Your task to perform on an android device: add a contact Image 0: 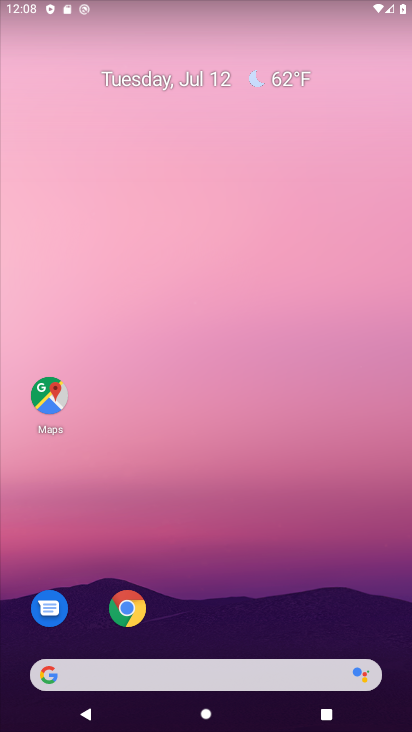
Step 0: drag from (276, 576) to (293, 77)
Your task to perform on an android device: add a contact Image 1: 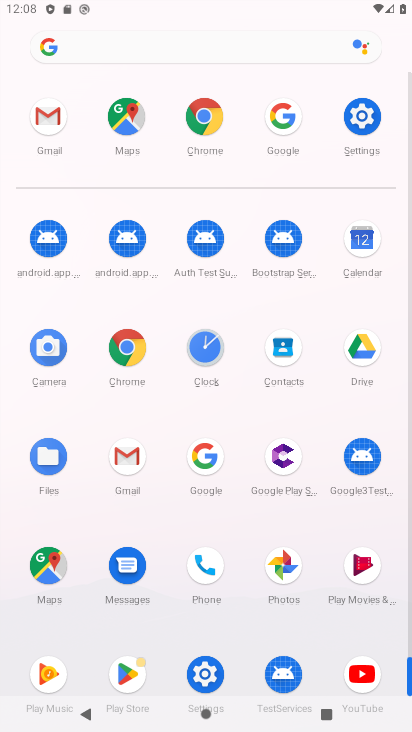
Step 1: click (197, 572)
Your task to perform on an android device: add a contact Image 2: 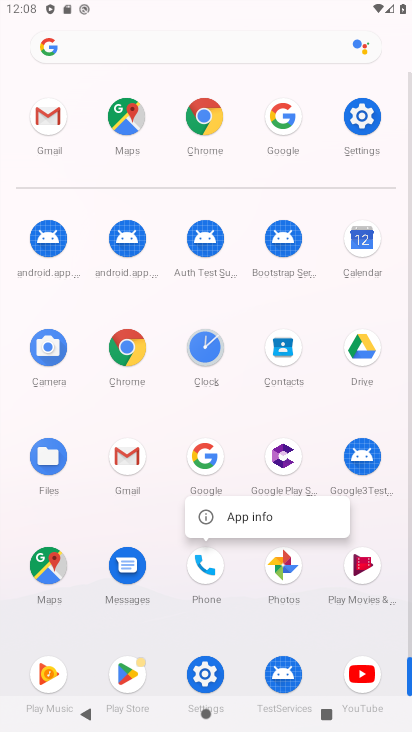
Step 2: click (207, 569)
Your task to perform on an android device: add a contact Image 3: 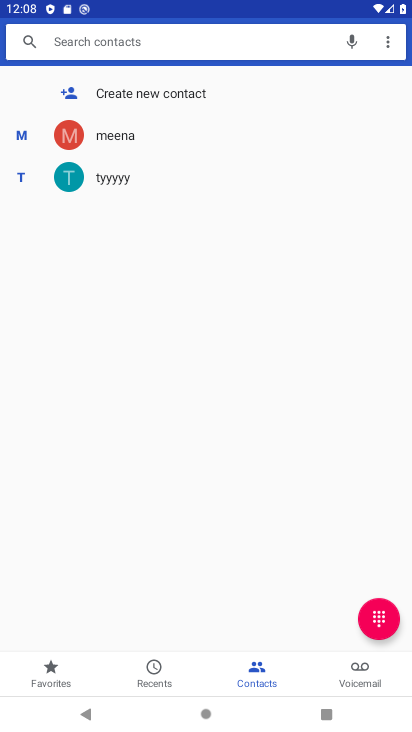
Step 3: click (142, 92)
Your task to perform on an android device: add a contact Image 4: 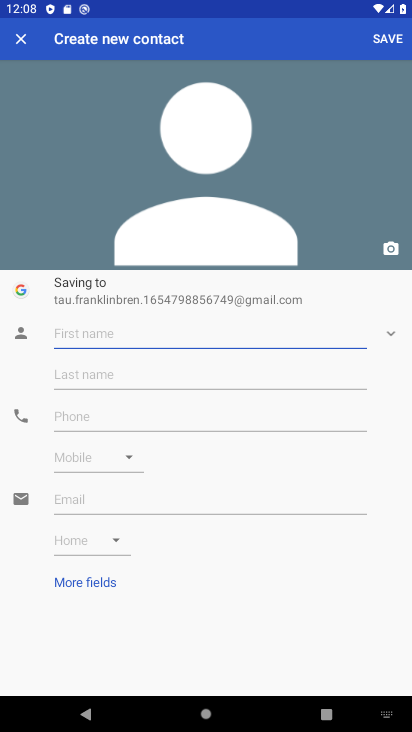
Step 4: type "tyuuu"
Your task to perform on an android device: add a contact Image 5: 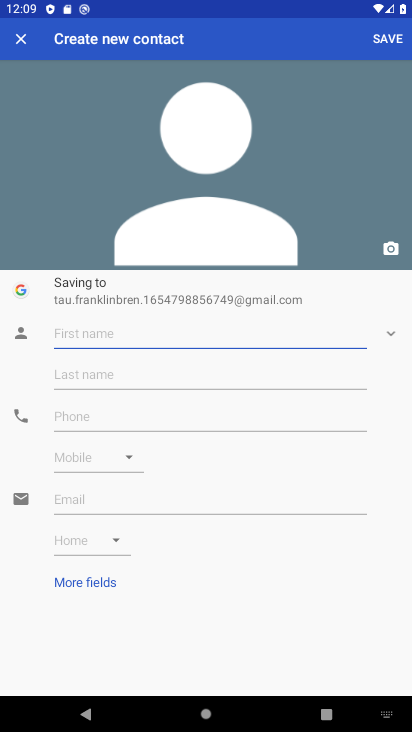
Step 5: click (106, 413)
Your task to perform on an android device: add a contact Image 6: 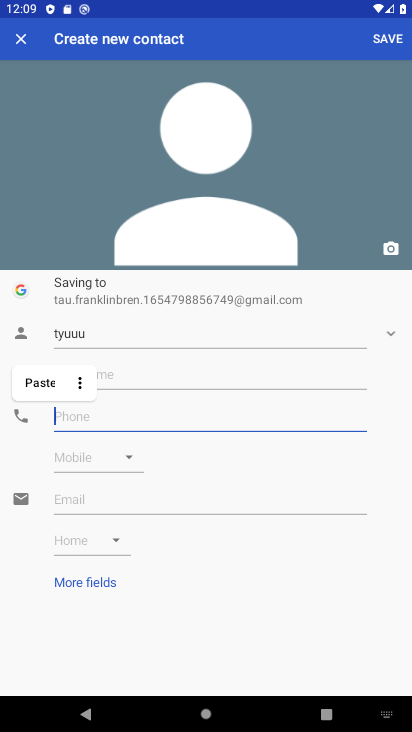
Step 6: type "6789988"
Your task to perform on an android device: add a contact Image 7: 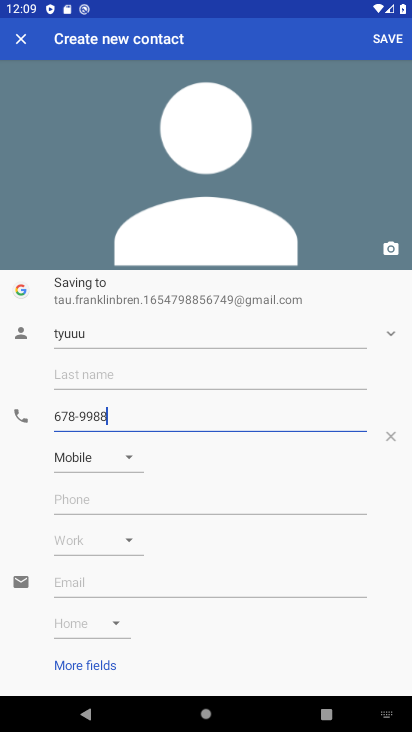
Step 7: click (382, 31)
Your task to perform on an android device: add a contact Image 8: 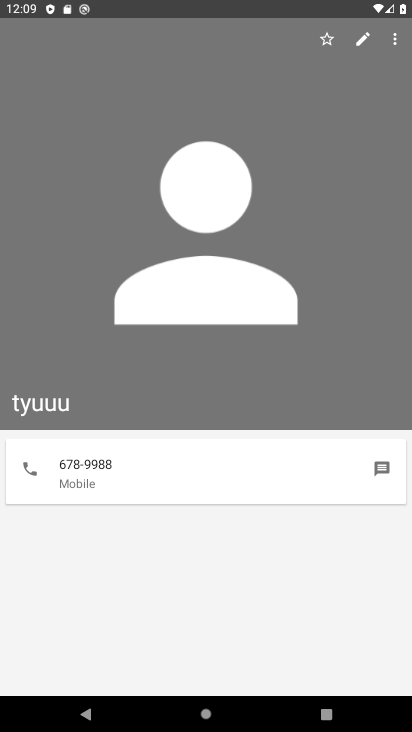
Step 8: task complete